Your task to perform on an android device: Is it going to rain this weekend? Image 0: 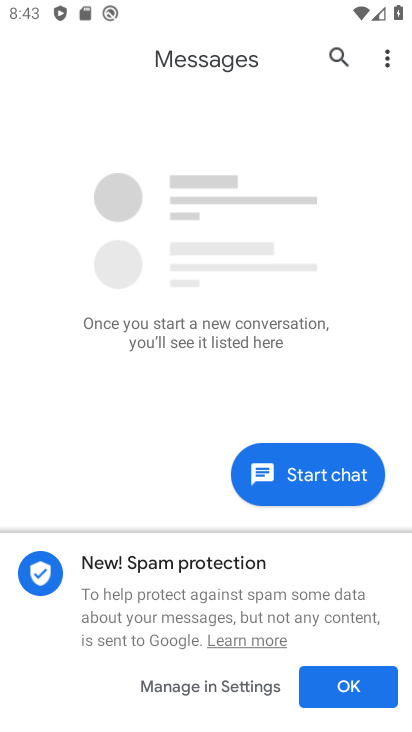
Step 0: press home button
Your task to perform on an android device: Is it going to rain this weekend? Image 1: 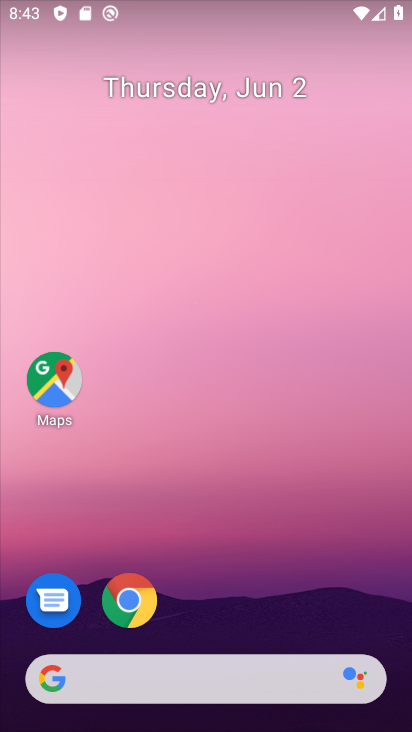
Step 1: click (182, 685)
Your task to perform on an android device: Is it going to rain this weekend? Image 2: 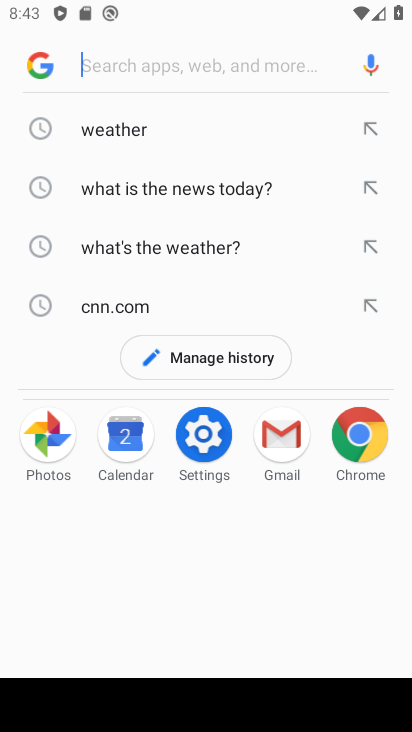
Step 2: type "Is it going to rain this weekend?"
Your task to perform on an android device: Is it going to rain this weekend? Image 3: 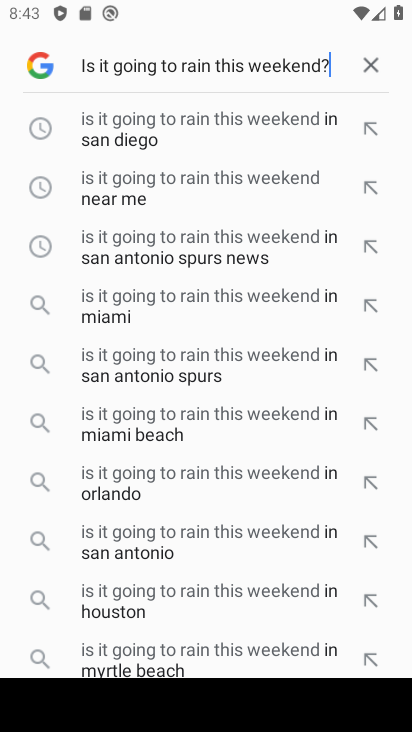
Step 3: click (201, 119)
Your task to perform on an android device: Is it going to rain this weekend? Image 4: 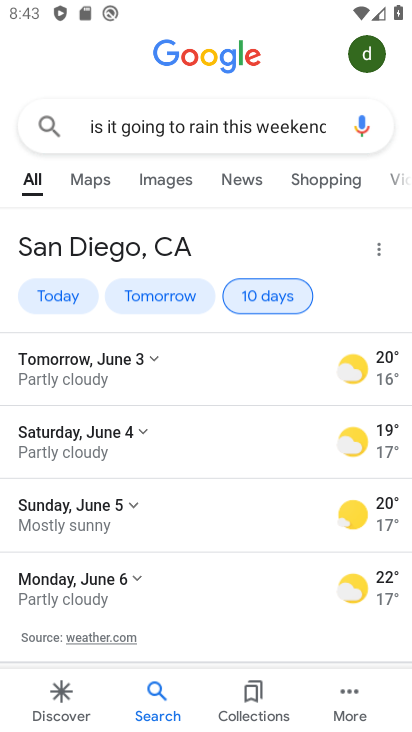
Step 4: task complete